Your task to perform on an android device: What's the weather going to be tomorrow? Image 0: 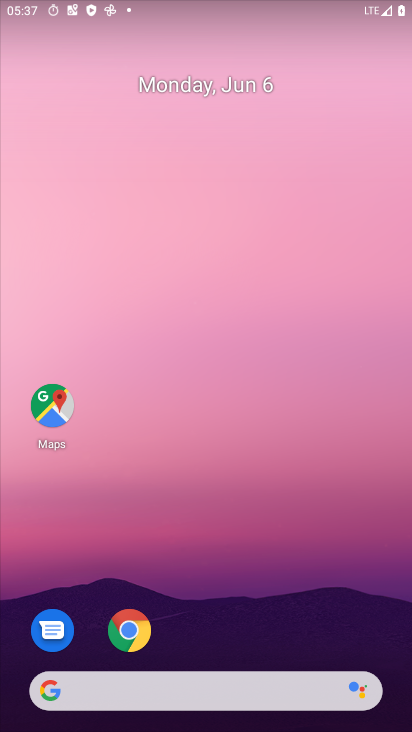
Step 0: drag from (283, 620) to (294, 6)
Your task to perform on an android device: What's the weather going to be tomorrow? Image 1: 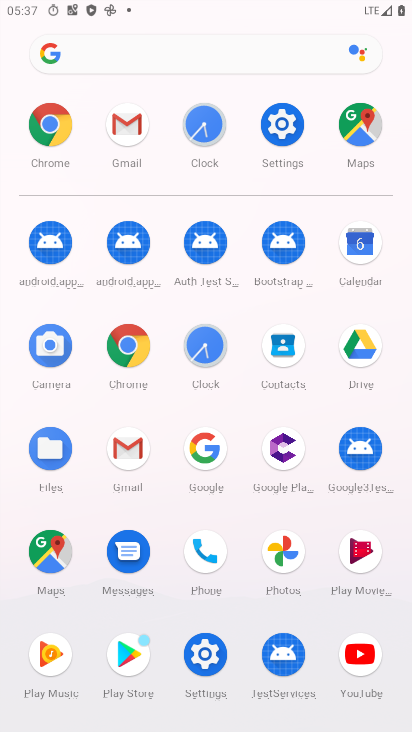
Step 1: click (124, 344)
Your task to perform on an android device: What's the weather going to be tomorrow? Image 2: 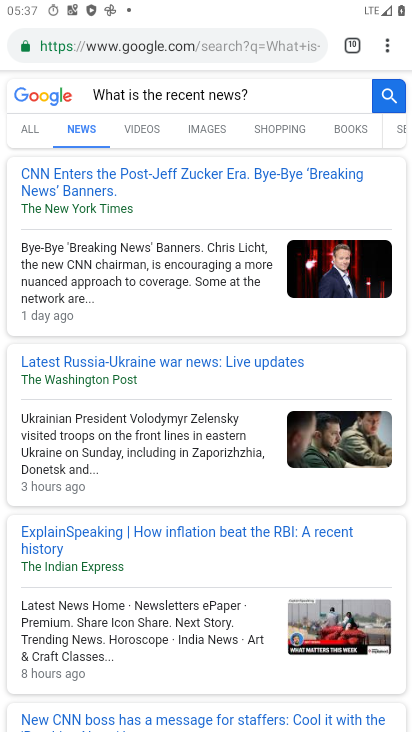
Step 2: click (183, 42)
Your task to perform on an android device: What's the weather going to be tomorrow? Image 3: 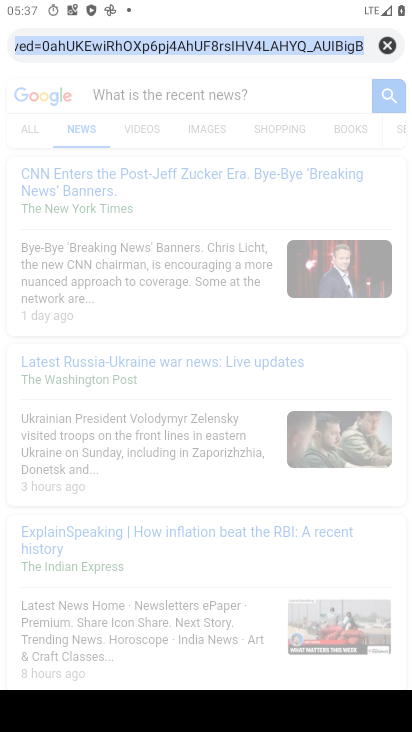
Step 3: click (159, 51)
Your task to perform on an android device: What's the weather going to be tomorrow? Image 4: 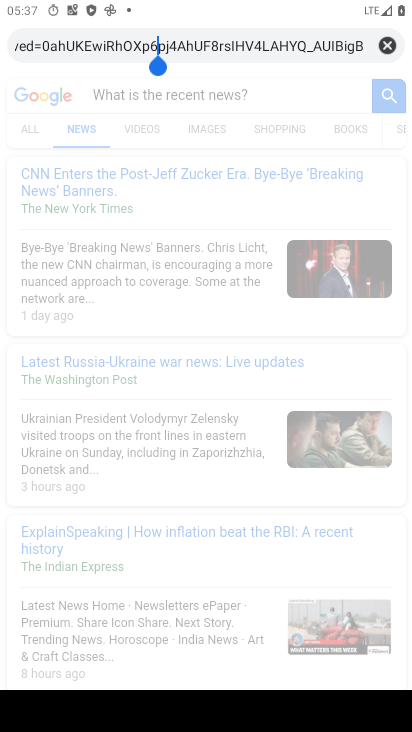
Step 4: click (293, 49)
Your task to perform on an android device: What's the weather going to be tomorrow? Image 5: 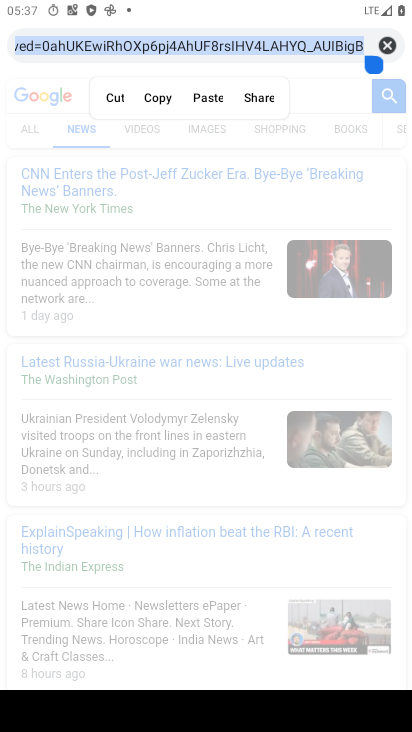
Step 5: click (385, 41)
Your task to perform on an android device: What's the weather going to be tomorrow? Image 6: 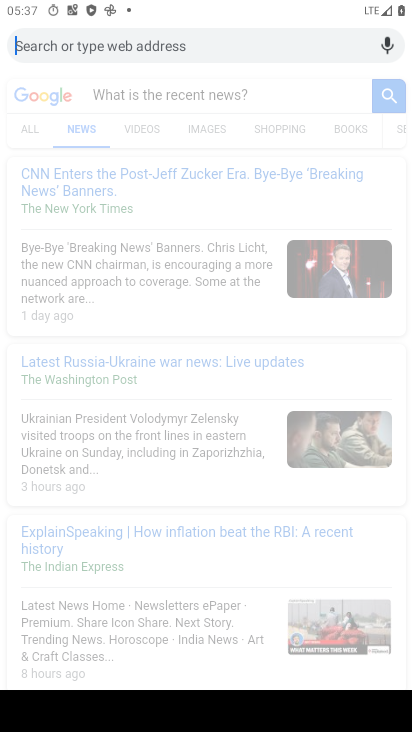
Step 6: type "What's the weather going to be tomorrow?"
Your task to perform on an android device: What's the weather going to be tomorrow? Image 7: 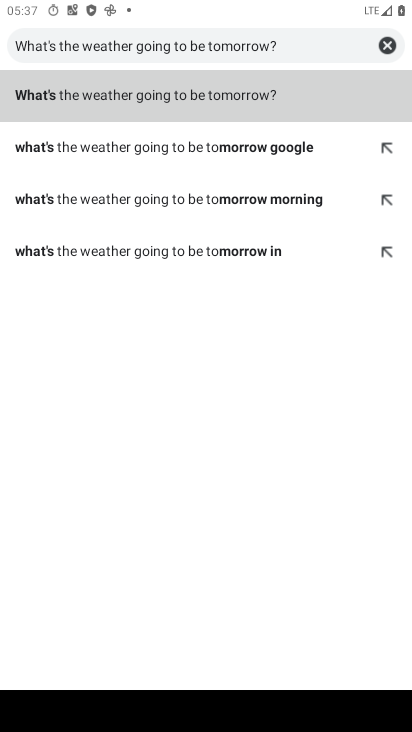
Step 7: click (181, 91)
Your task to perform on an android device: What's the weather going to be tomorrow? Image 8: 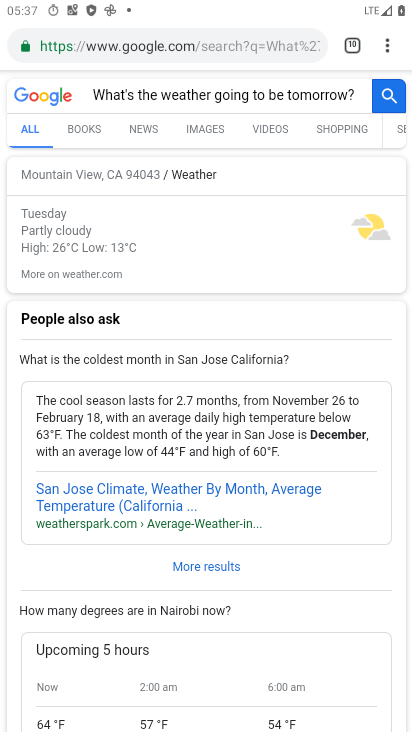
Step 8: task complete